Your task to perform on an android device: change the clock style Image 0: 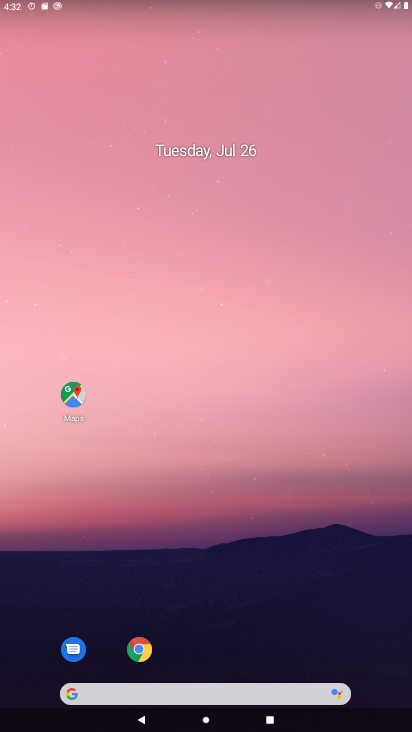
Step 0: drag from (352, 634) to (196, 27)
Your task to perform on an android device: change the clock style Image 1: 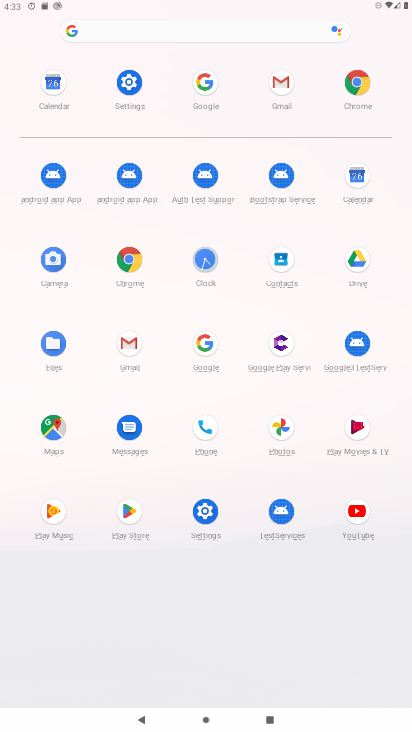
Step 1: click (205, 257)
Your task to perform on an android device: change the clock style Image 2: 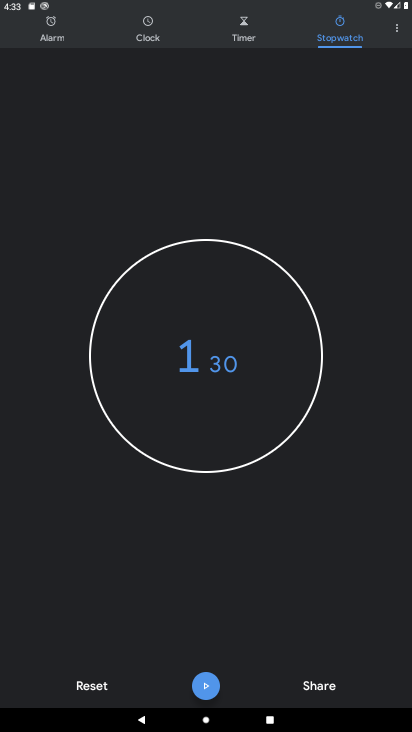
Step 2: click (400, 32)
Your task to perform on an android device: change the clock style Image 3: 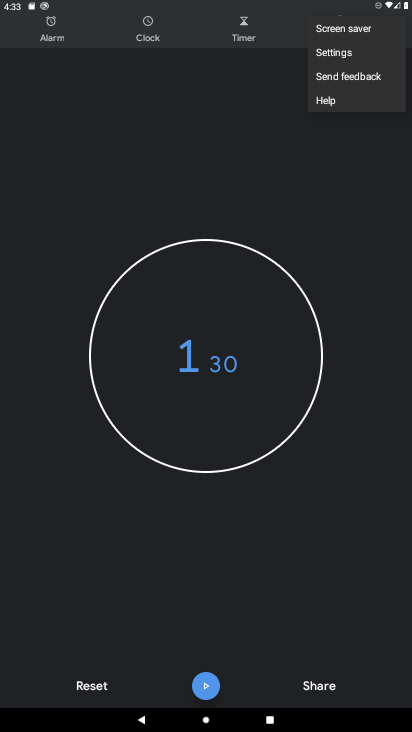
Step 3: click (338, 59)
Your task to perform on an android device: change the clock style Image 4: 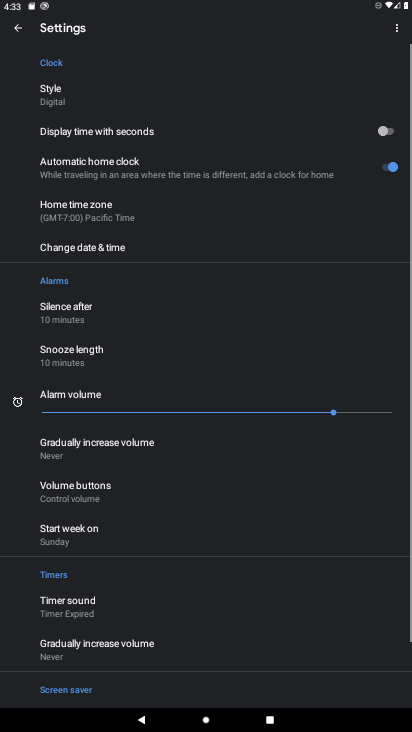
Step 4: click (85, 99)
Your task to perform on an android device: change the clock style Image 5: 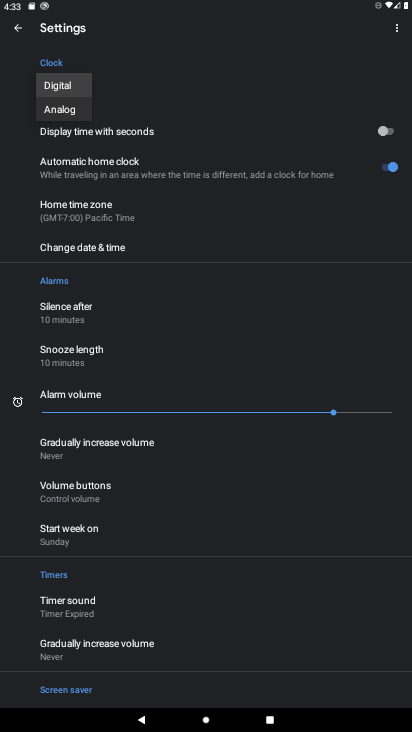
Step 5: click (60, 114)
Your task to perform on an android device: change the clock style Image 6: 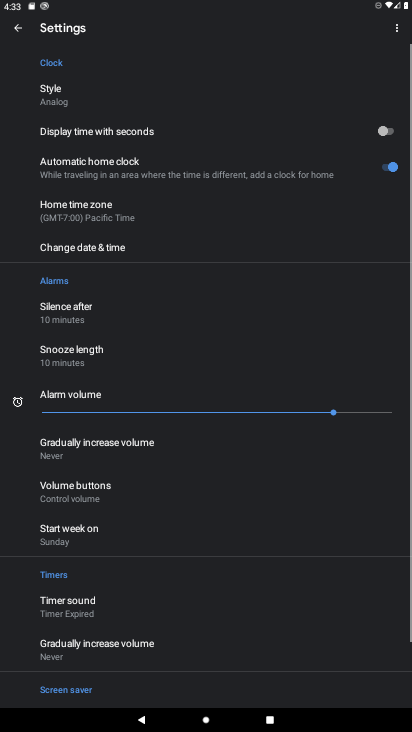
Step 6: task complete